Your task to perform on an android device: Open Youtube and go to the subscriptions tab Image 0: 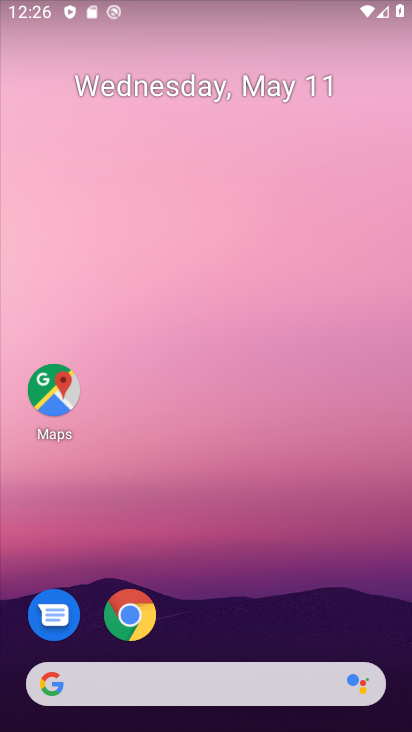
Step 0: drag from (215, 609) to (242, 228)
Your task to perform on an android device: Open Youtube and go to the subscriptions tab Image 1: 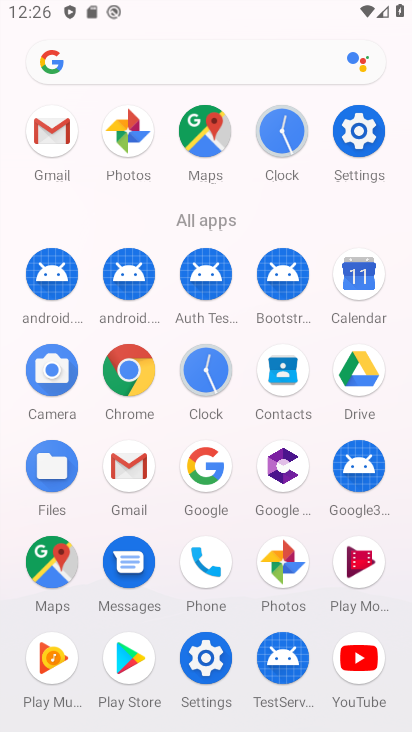
Step 1: click (359, 671)
Your task to perform on an android device: Open Youtube and go to the subscriptions tab Image 2: 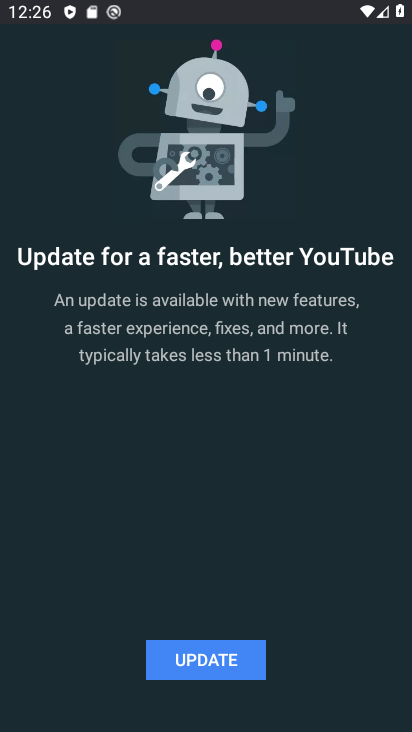
Step 2: click (258, 652)
Your task to perform on an android device: Open Youtube and go to the subscriptions tab Image 3: 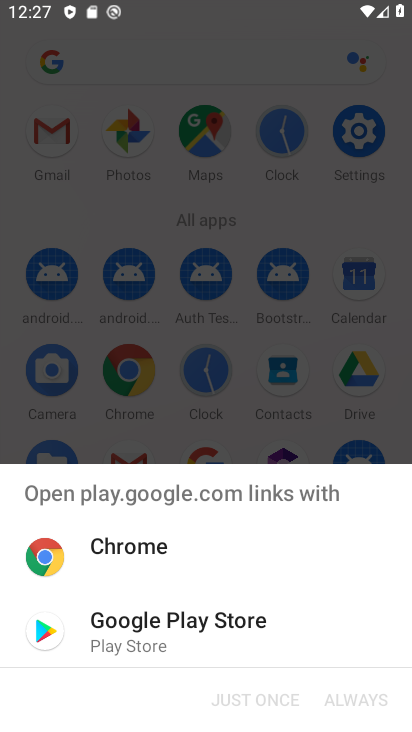
Step 3: click (258, 652)
Your task to perform on an android device: Open Youtube and go to the subscriptions tab Image 4: 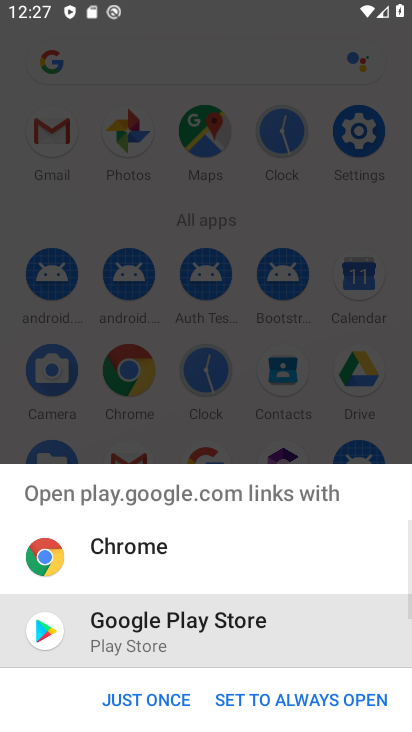
Step 4: click (132, 706)
Your task to perform on an android device: Open Youtube and go to the subscriptions tab Image 5: 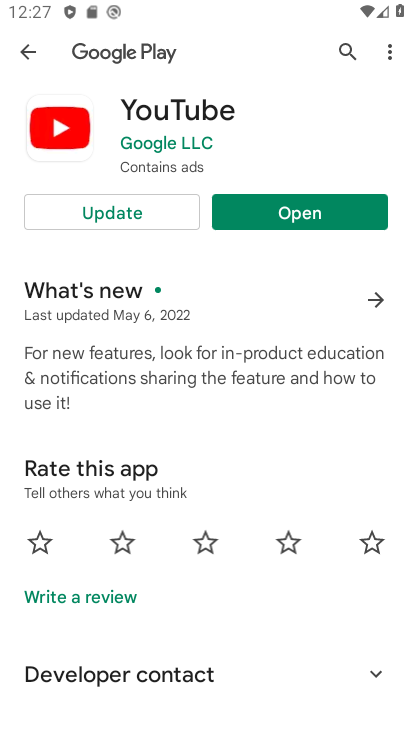
Step 5: click (96, 220)
Your task to perform on an android device: Open Youtube and go to the subscriptions tab Image 6: 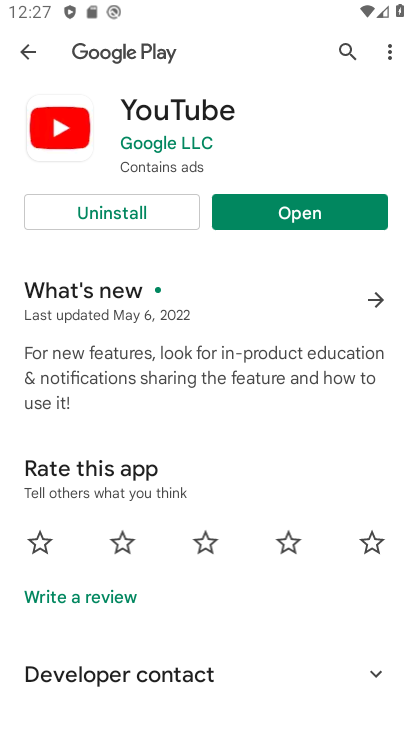
Step 6: click (336, 205)
Your task to perform on an android device: Open Youtube and go to the subscriptions tab Image 7: 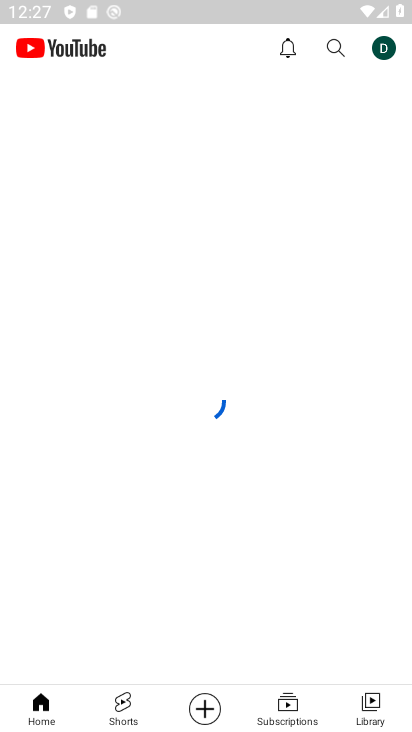
Step 7: click (251, 714)
Your task to perform on an android device: Open Youtube and go to the subscriptions tab Image 8: 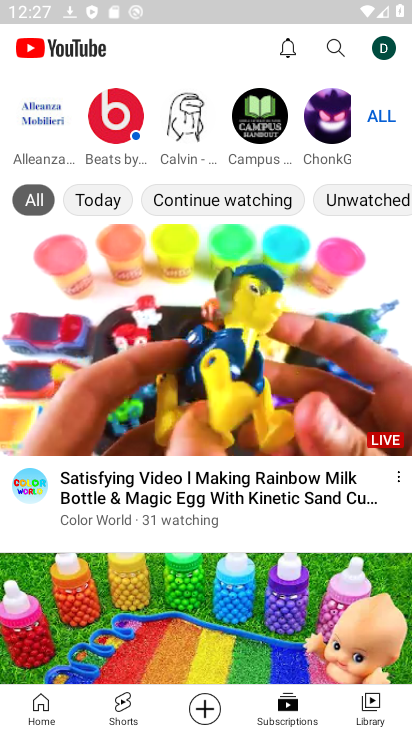
Step 8: task complete